Your task to perform on an android device: Checkthe settings for the Amazon Prime Music app Image 0: 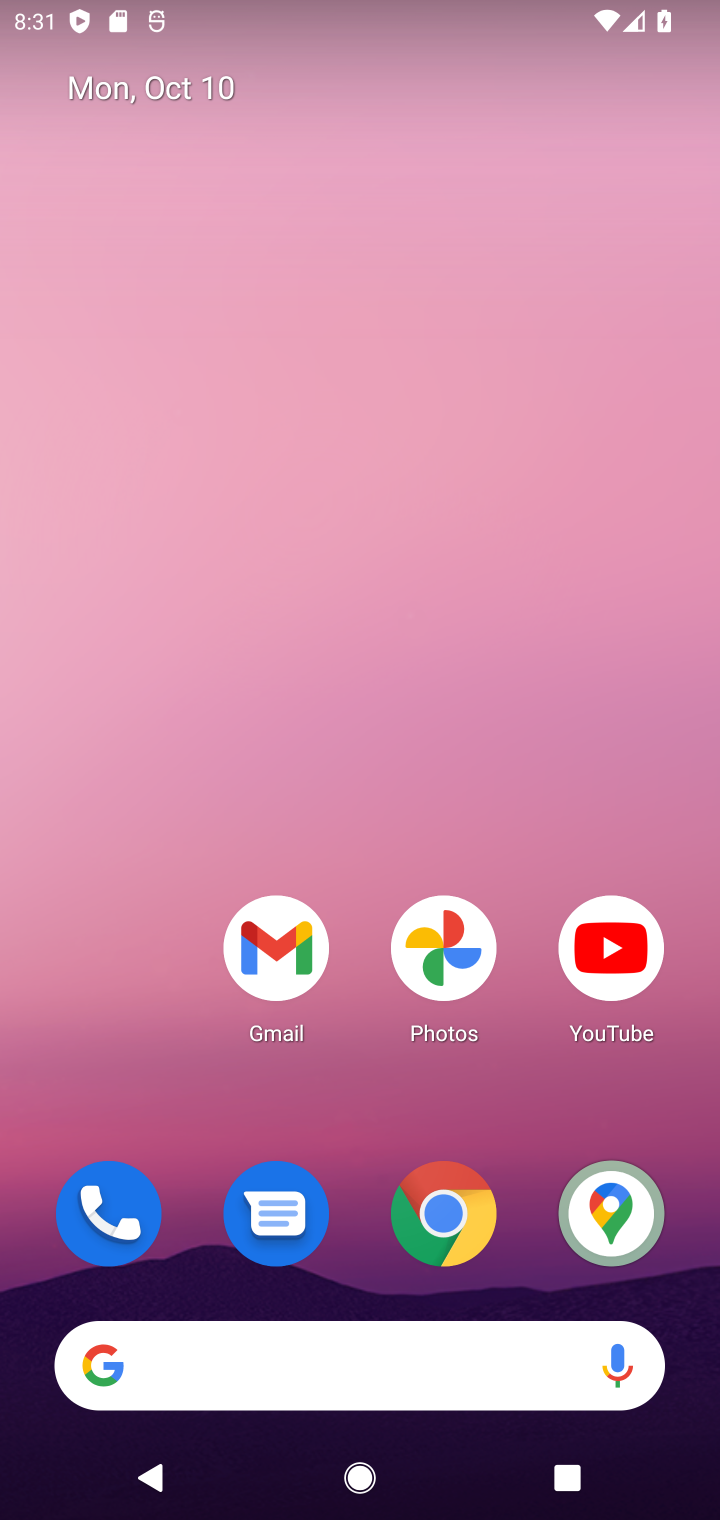
Step 0: drag from (179, 873) to (356, 119)
Your task to perform on an android device: Checkthe settings for the Amazon Prime Music app Image 1: 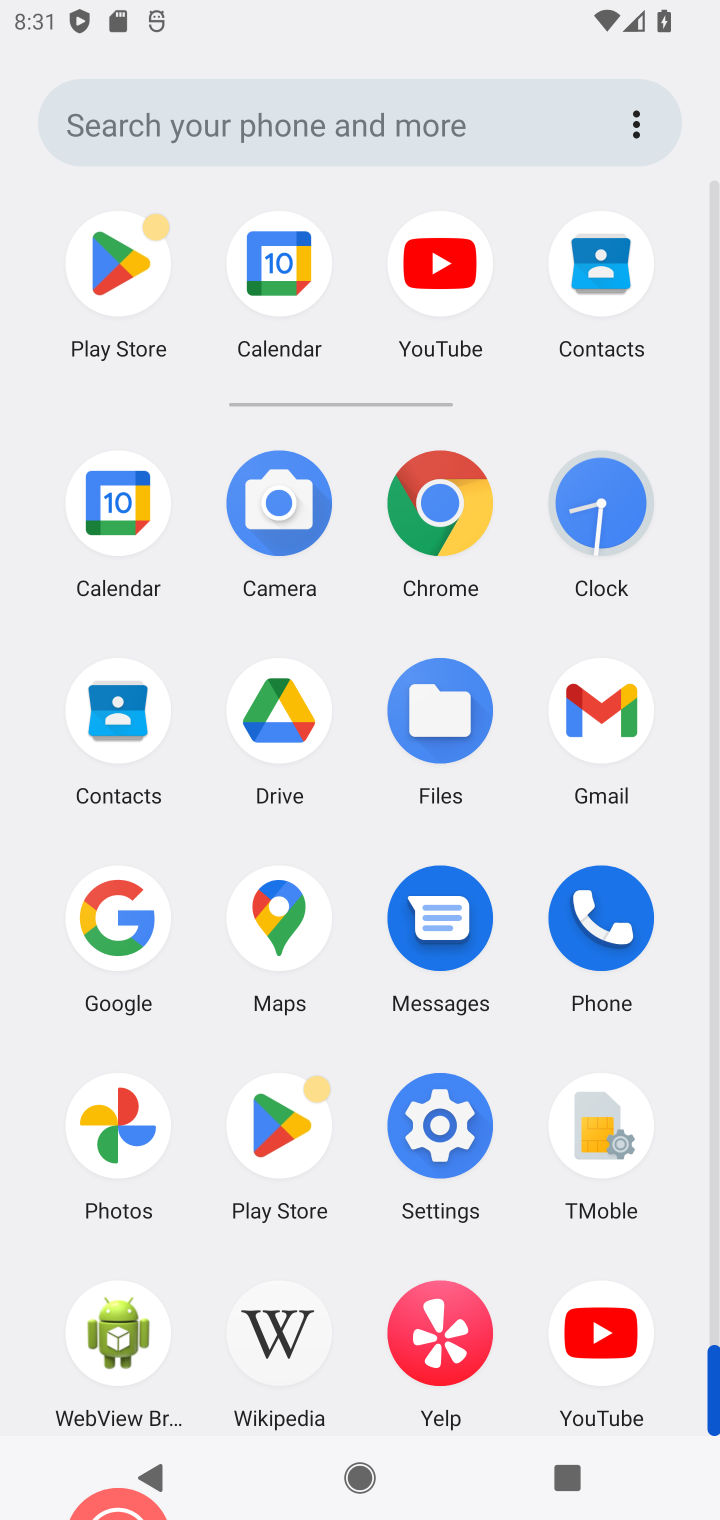
Step 1: task complete